Your task to perform on an android device: turn pop-ups off in chrome Image 0: 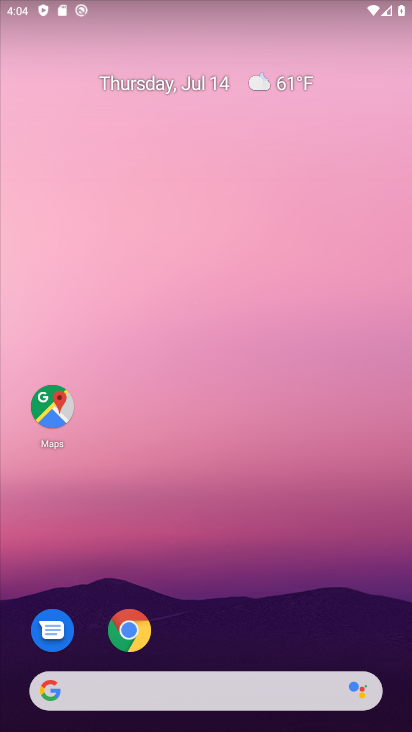
Step 0: click (143, 632)
Your task to perform on an android device: turn pop-ups off in chrome Image 1: 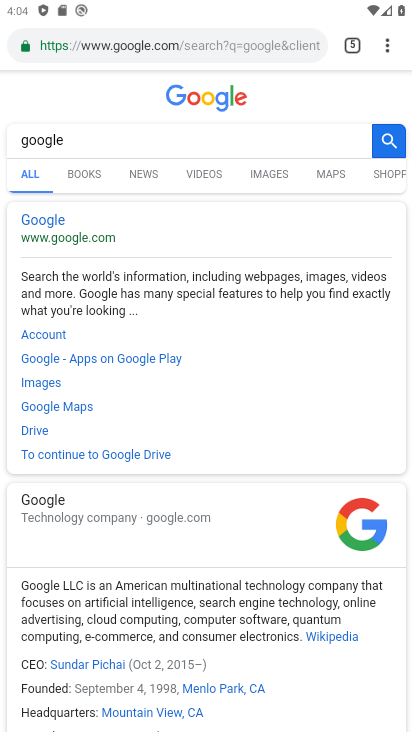
Step 1: click (386, 50)
Your task to perform on an android device: turn pop-ups off in chrome Image 2: 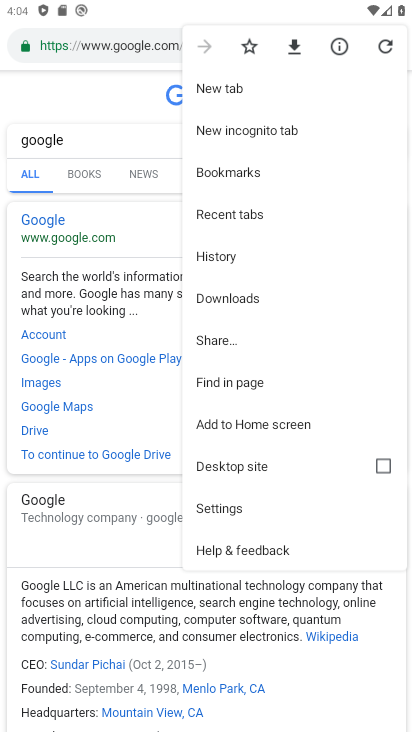
Step 2: click (241, 511)
Your task to perform on an android device: turn pop-ups off in chrome Image 3: 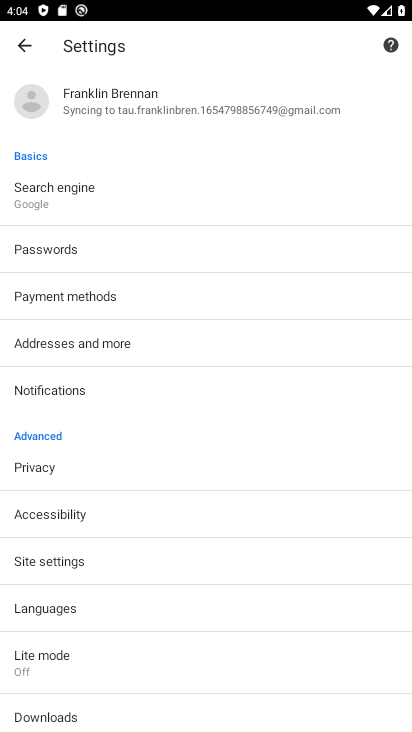
Step 3: click (113, 571)
Your task to perform on an android device: turn pop-ups off in chrome Image 4: 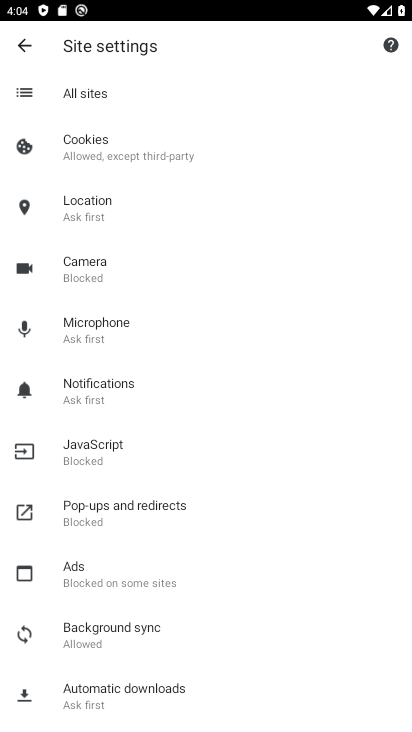
Step 4: click (131, 535)
Your task to perform on an android device: turn pop-ups off in chrome Image 5: 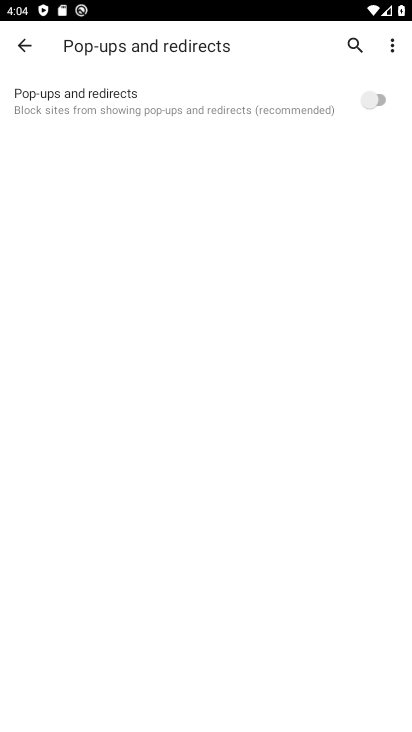
Step 5: task complete